Your task to perform on an android device: toggle notification dots Image 0: 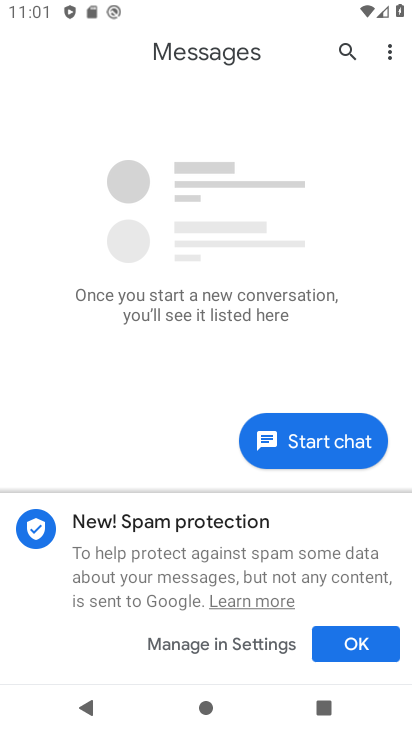
Step 0: press home button
Your task to perform on an android device: toggle notification dots Image 1: 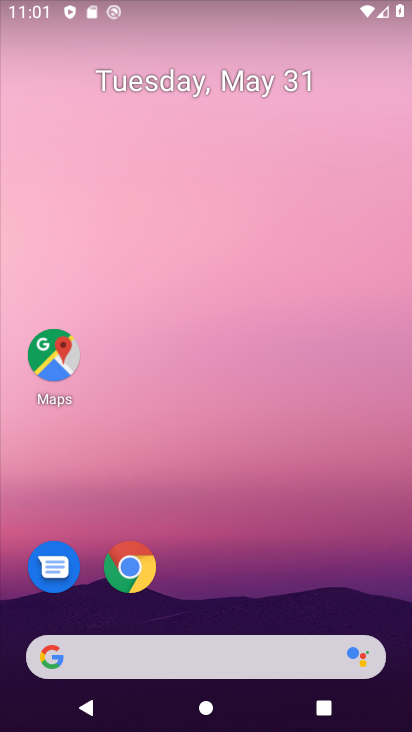
Step 1: drag from (255, 610) to (284, 9)
Your task to perform on an android device: toggle notification dots Image 2: 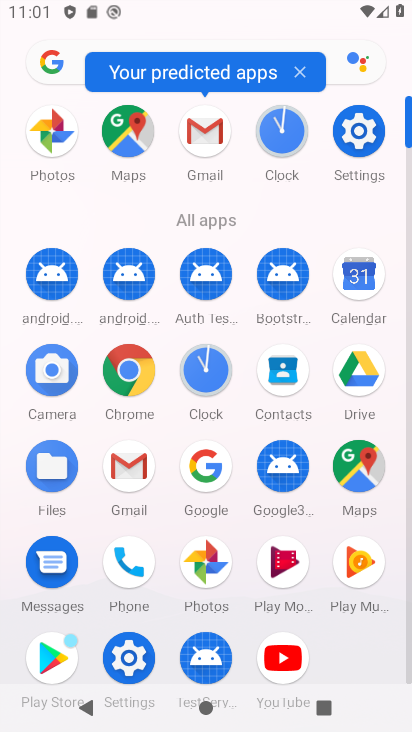
Step 2: click (138, 650)
Your task to perform on an android device: toggle notification dots Image 3: 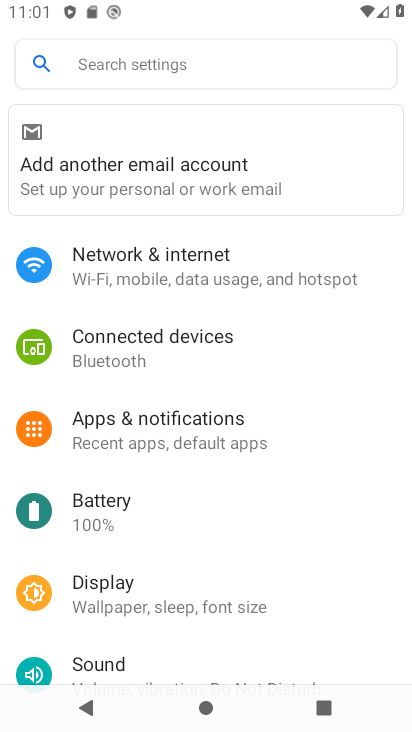
Step 3: click (229, 437)
Your task to perform on an android device: toggle notification dots Image 4: 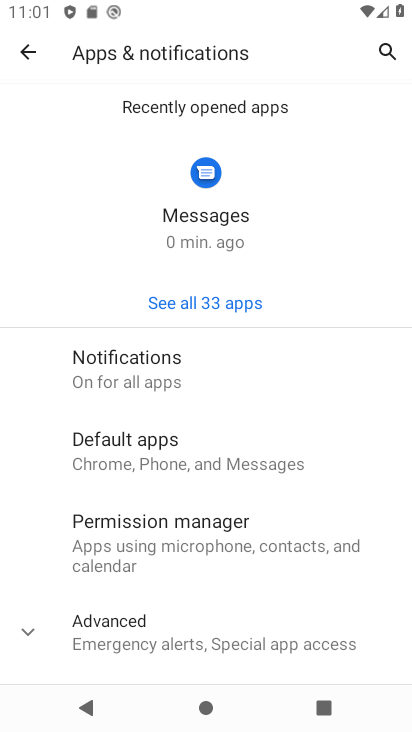
Step 4: click (210, 375)
Your task to perform on an android device: toggle notification dots Image 5: 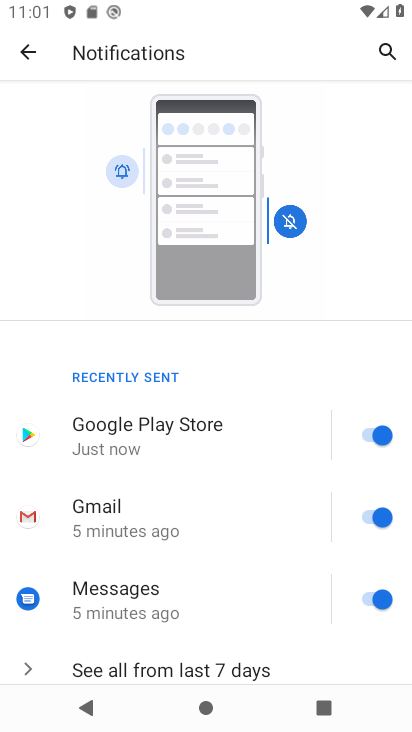
Step 5: drag from (247, 643) to (237, 231)
Your task to perform on an android device: toggle notification dots Image 6: 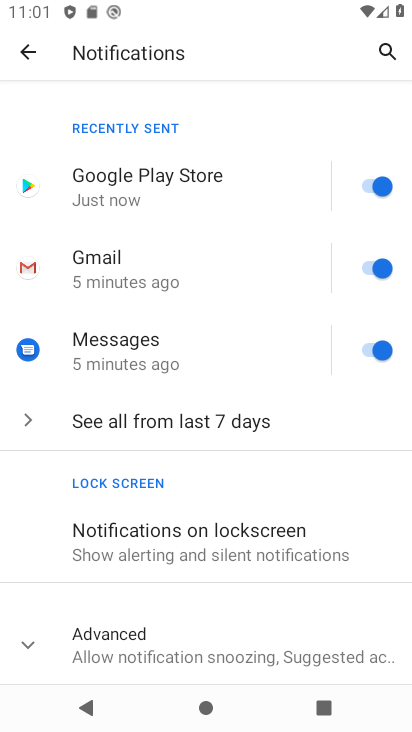
Step 6: click (259, 661)
Your task to perform on an android device: toggle notification dots Image 7: 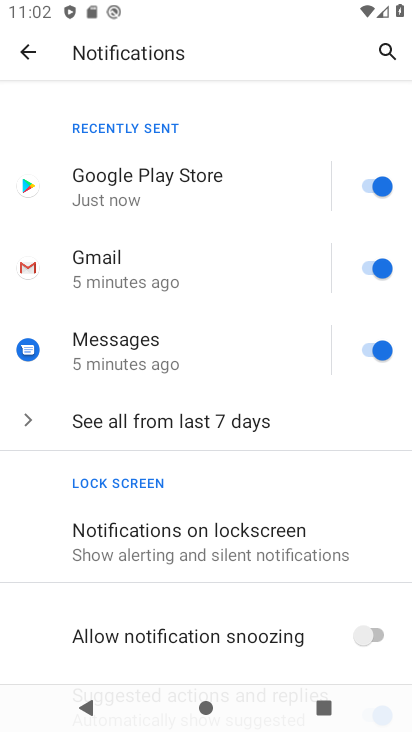
Step 7: drag from (259, 646) to (258, 252)
Your task to perform on an android device: toggle notification dots Image 8: 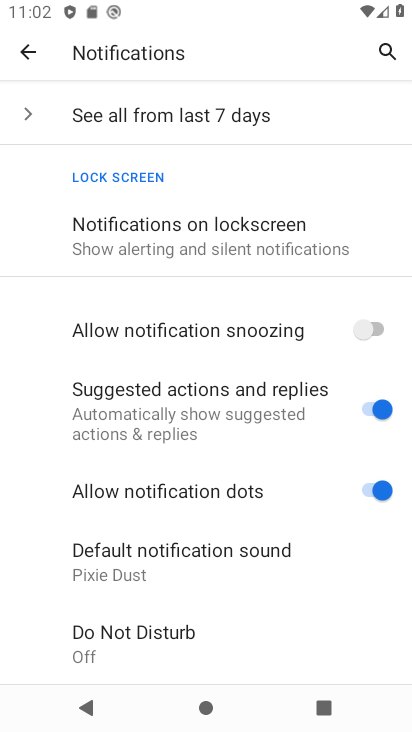
Step 8: click (377, 489)
Your task to perform on an android device: toggle notification dots Image 9: 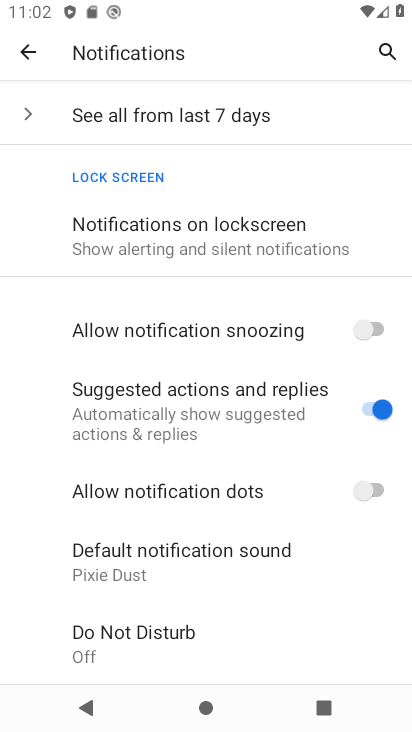
Step 9: task complete